Your task to perform on an android device: When is my next meeting? Image 0: 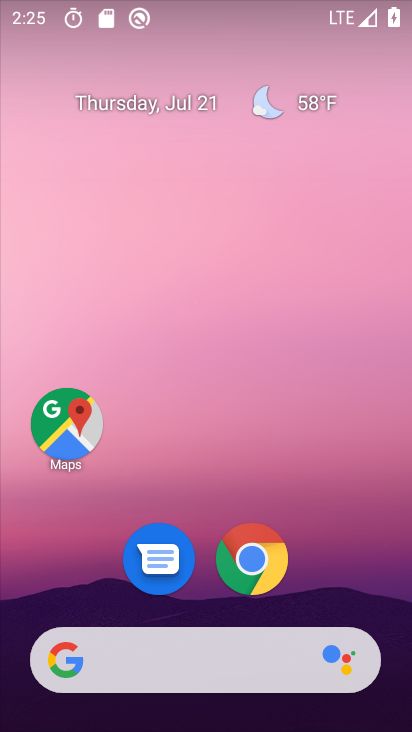
Step 0: drag from (375, 571) to (365, 93)
Your task to perform on an android device: When is my next meeting? Image 1: 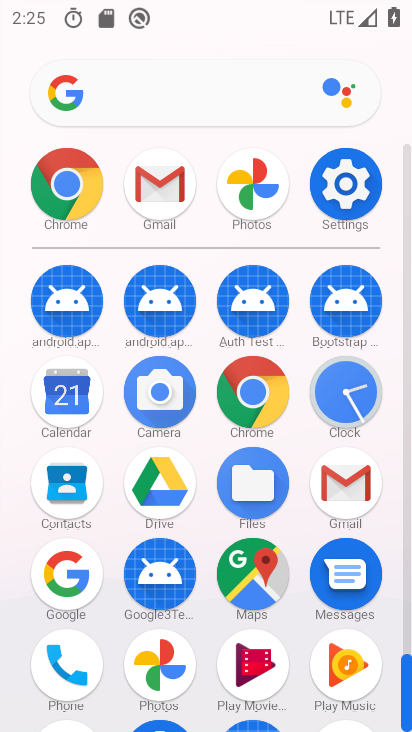
Step 1: click (68, 399)
Your task to perform on an android device: When is my next meeting? Image 2: 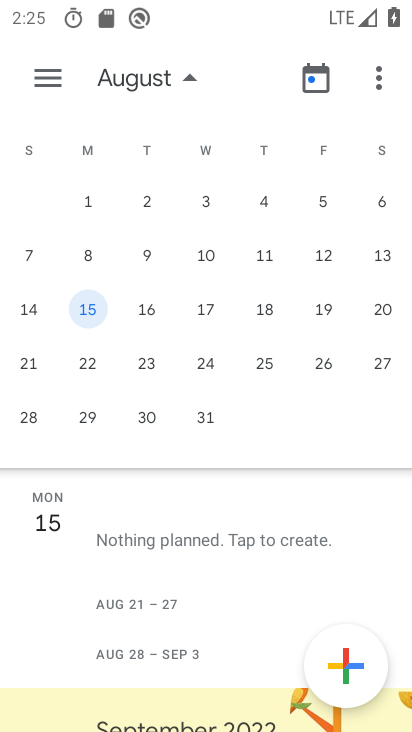
Step 2: drag from (139, 562) to (180, 239)
Your task to perform on an android device: When is my next meeting? Image 3: 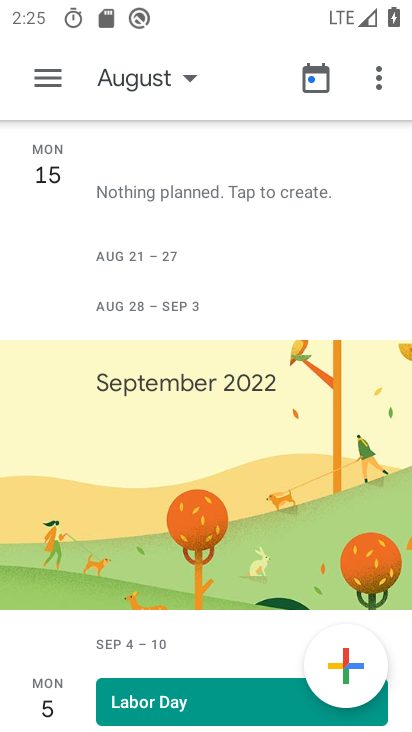
Step 3: drag from (217, 164) to (221, 348)
Your task to perform on an android device: When is my next meeting? Image 4: 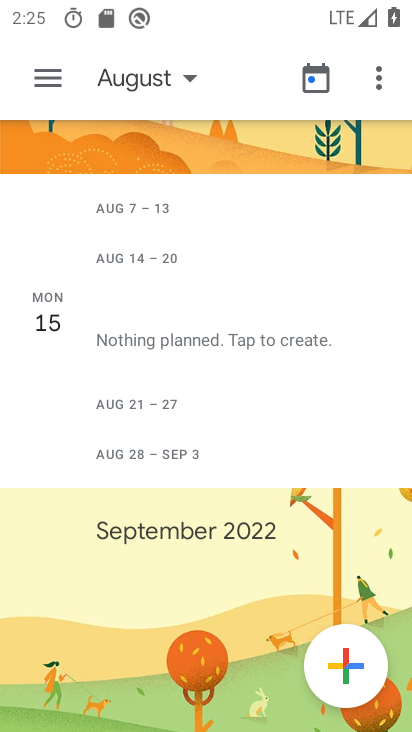
Step 4: drag from (204, 189) to (212, 381)
Your task to perform on an android device: When is my next meeting? Image 5: 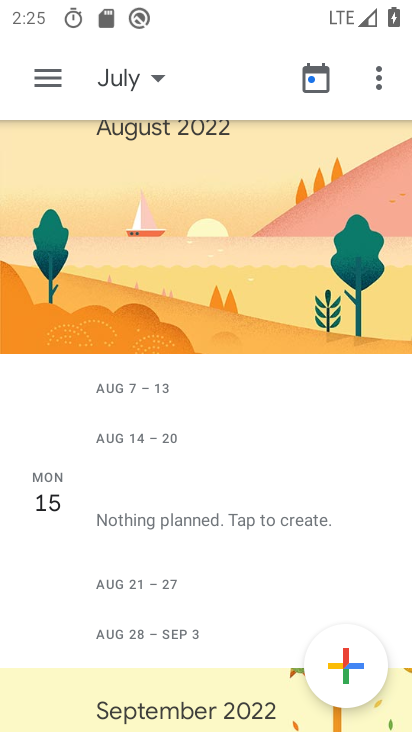
Step 5: drag from (197, 167) to (206, 405)
Your task to perform on an android device: When is my next meeting? Image 6: 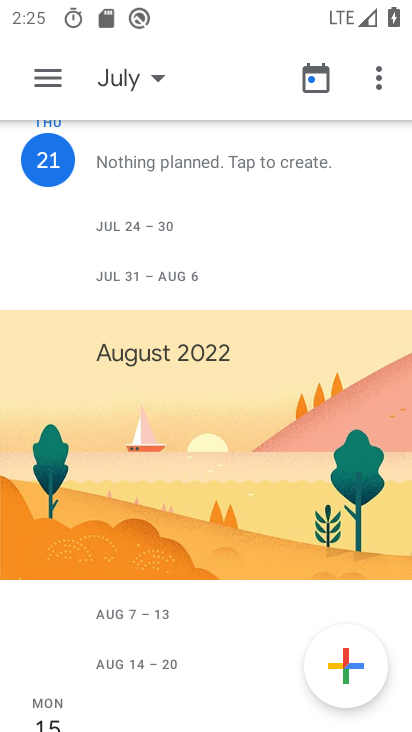
Step 6: click (160, 78)
Your task to perform on an android device: When is my next meeting? Image 7: 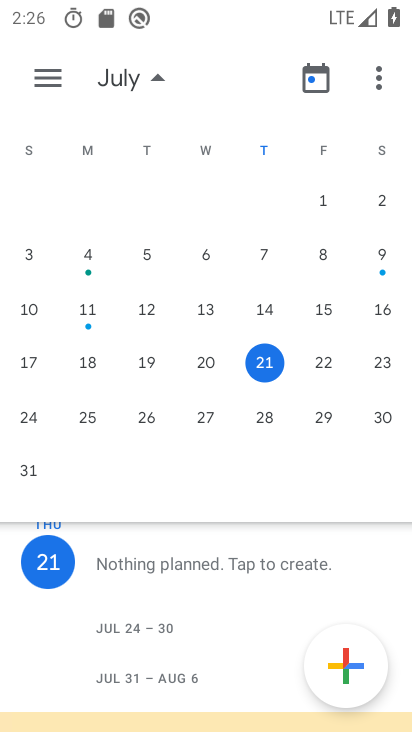
Step 7: task complete